Your task to perform on an android device: change notification settings in the gmail app Image 0: 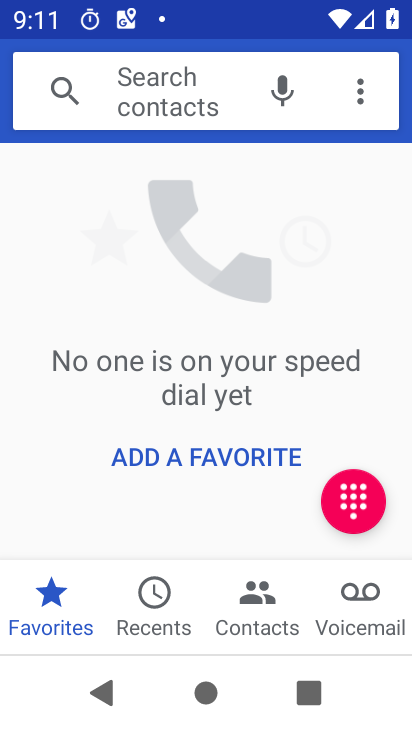
Step 0: press home button
Your task to perform on an android device: change notification settings in the gmail app Image 1: 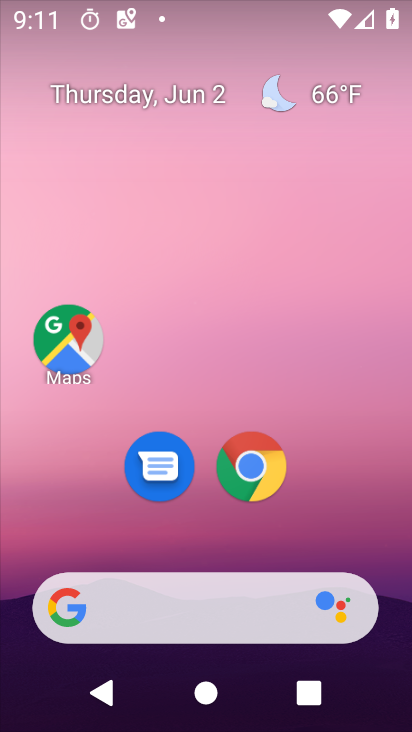
Step 1: drag from (15, 639) to (411, 70)
Your task to perform on an android device: change notification settings in the gmail app Image 2: 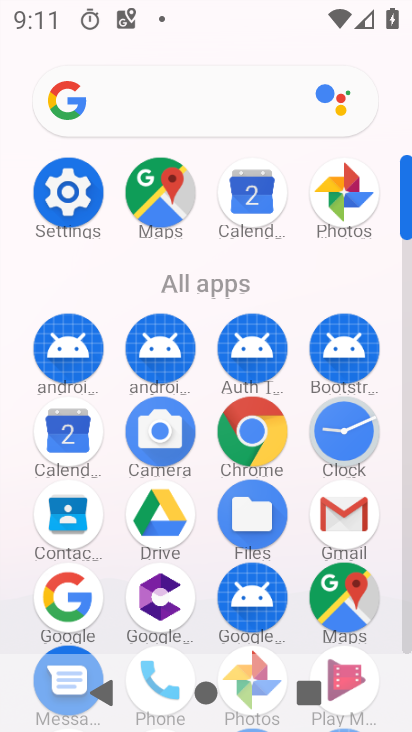
Step 2: click (331, 512)
Your task to perform on an android device: change notification settings in the gmail app Image 3: 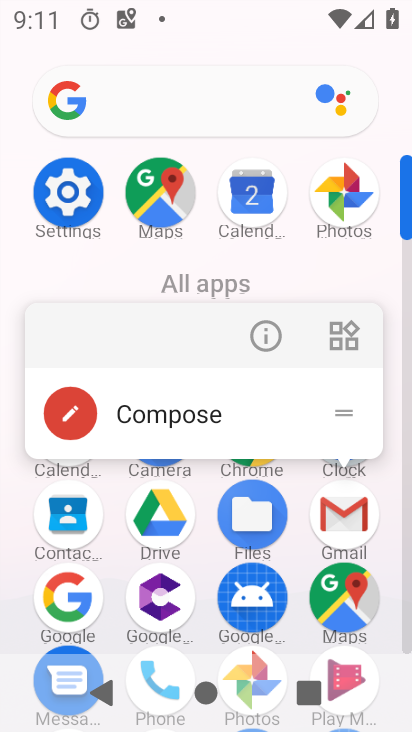
Step 3: click (331, 512)
Your task to perform on an android device: change notification settings in the gmail app Image 4: 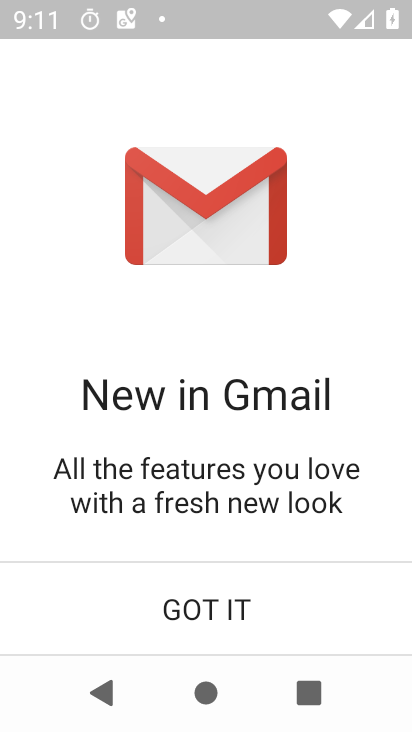
Step 4: click (214, 598)
Your task to perform on an android device: change notification settings in the gmail app Image 5: 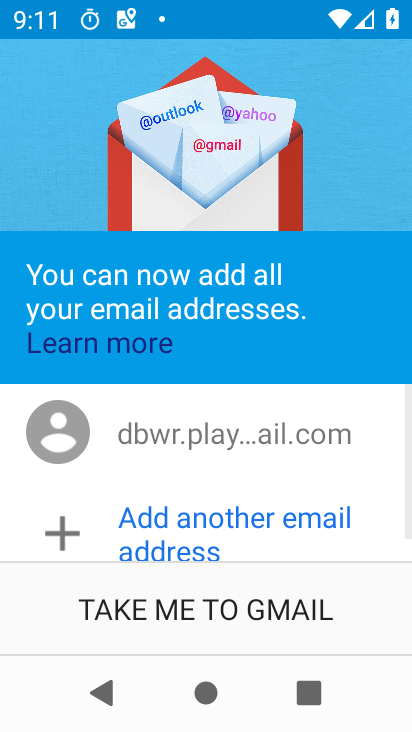
Step 5: click (214, 593)
Your task to perform on an android device: change notification settings in the gmail app Image 6: 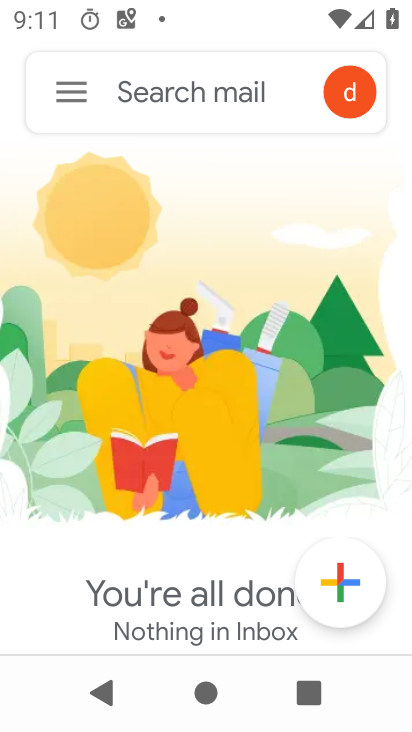
Step 6: click (66, 89)
Your task to perform on an android device: change notification settings in the gmail app Image 7: 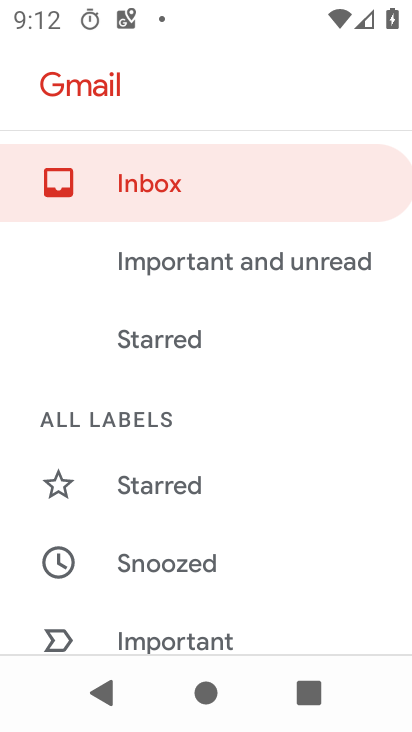
Step 7: drag from (7, 519) to (293, 70)
Your task to perform on an android device: change notification settings in the gmail app Image 8: 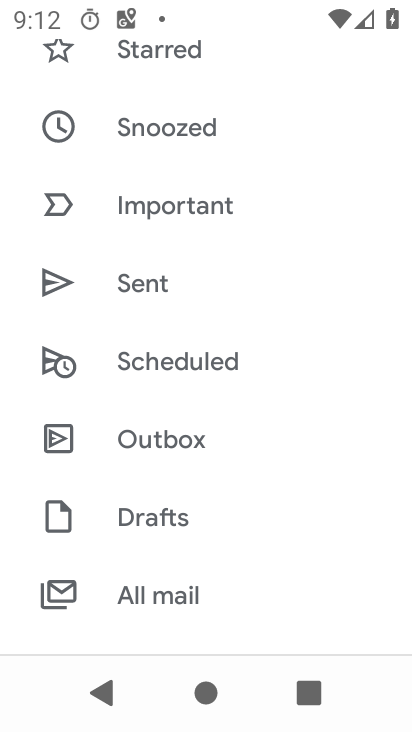
Step 8: drag from (67, 543) to (341, 122)
Your task to perform on an android device: change notification settings in the gmail app Image 9: 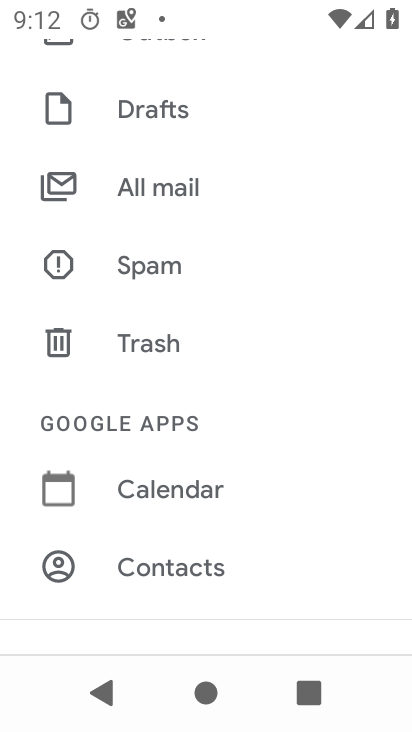
Step 9: drag from (37, 586) to (278, 228)
Your task to perform on an android device: change notification settings in the gmail app Image 10: 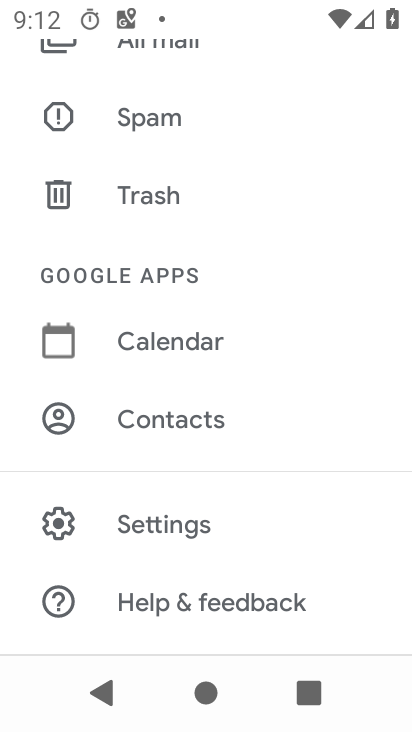
Step 10: click (137, 532)
Your task to perform on an android device: change notification settings in the gmail app Image 11: 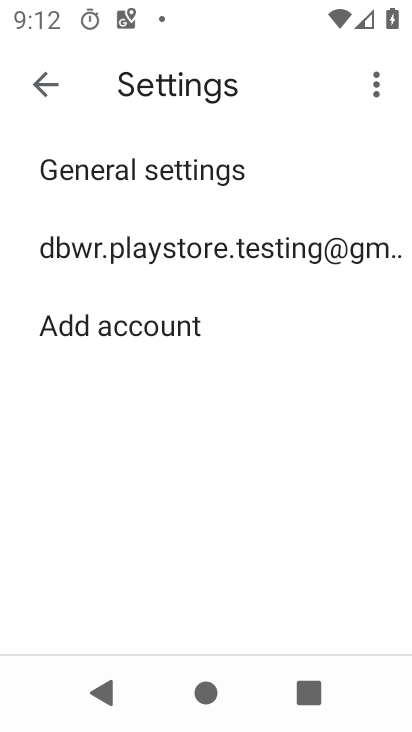
Step 11: click (112, 248)
Your task to perform on an android device: change notification settings in the gmail app Image 12: 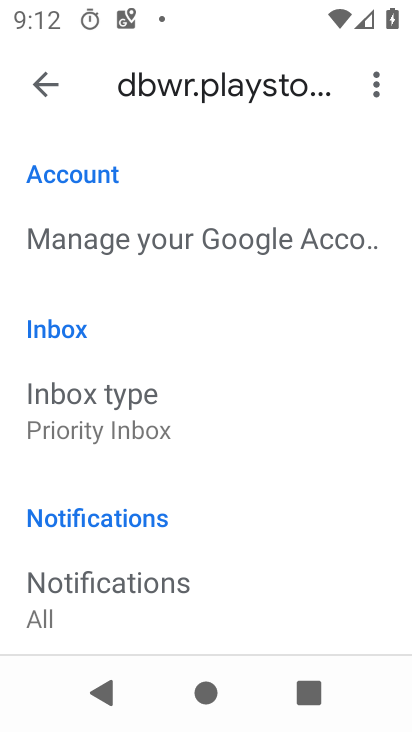
Step 12: drag from (23, 498) to (225, 183)
Your task to perform on an android device: change notification settings in the gmail app Image 13: 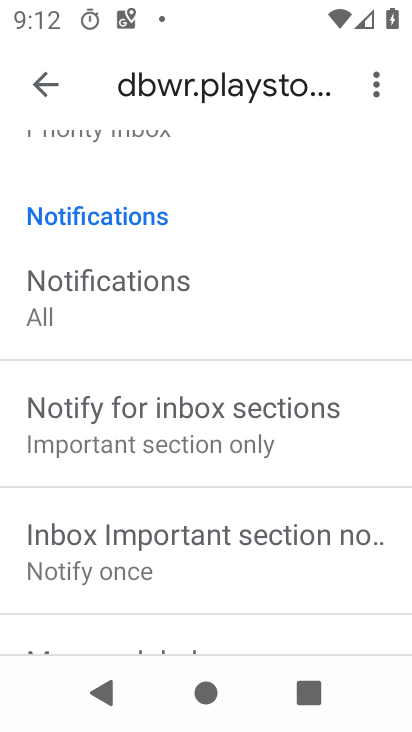
Step 13: drag from (18, 549) to (278, 243)
Your task to perform on an android device: change notification settings in the gmail app Image 14: 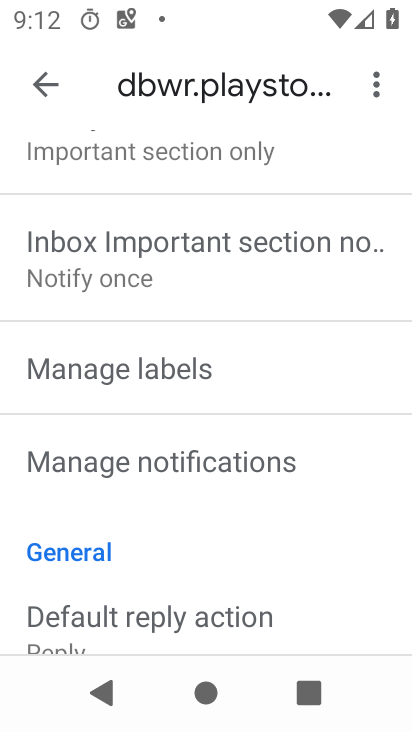
Step 14: click (154, 458)
Your task to perform on an android device: change notification settings in the gmail app Image 15: 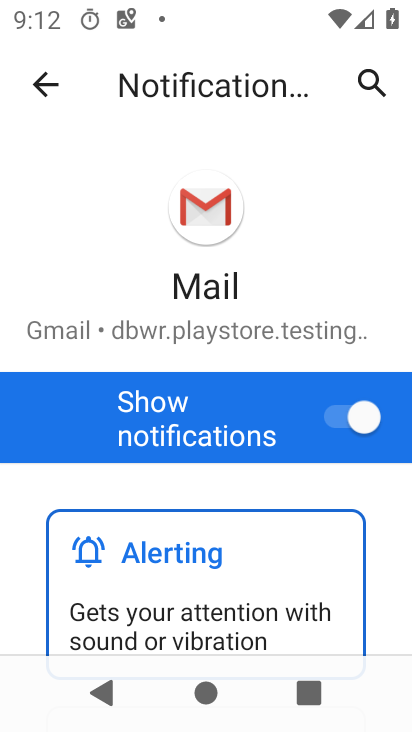
Step 15: click (375, 426)
Your task to perform on an android device: change notification settings in the gmail app Image 16: 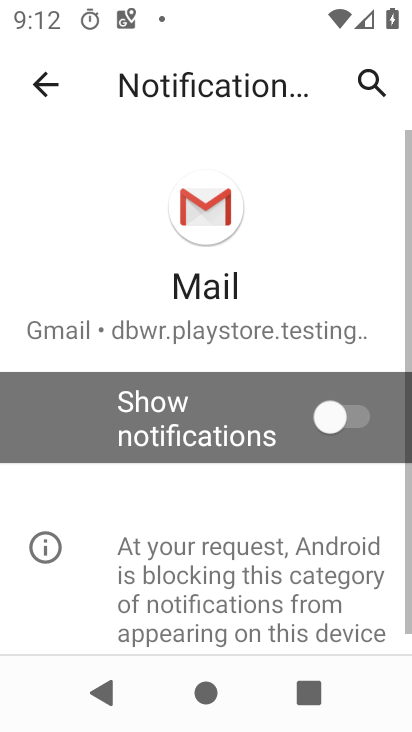
Step 16: task complete